Your task to perform on an android device: Open wifi settings Image 0: 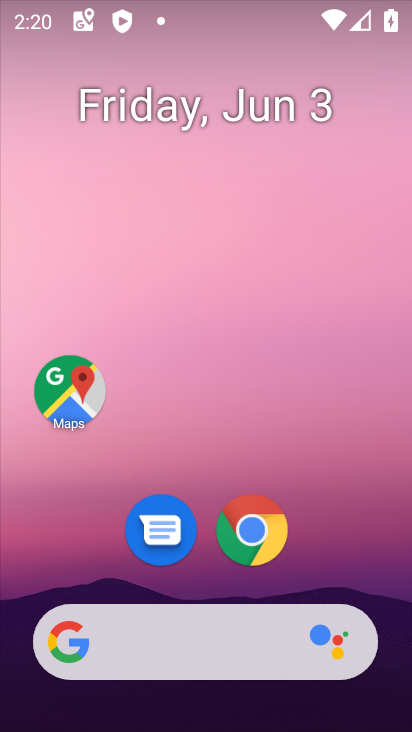
Step 0: drag from (336, 511) to (200, 98)
Your task to perform on an android device: Open wifi settings Image 1: 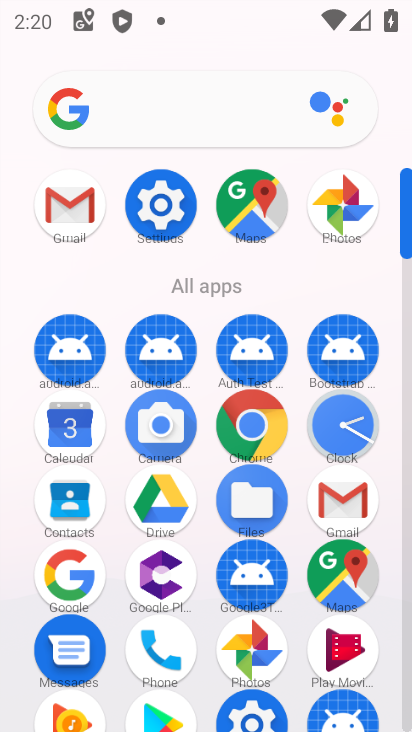
Step 1: click (158, 202)
Your task to perform on an android device: Open wifi settings Image 2: 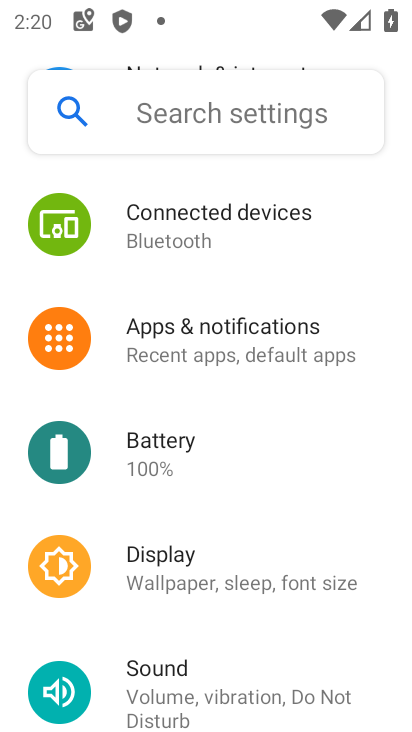
Step 2: drag from (221, 400) to (230, 713)
Your task to perform on an android device: Open wifi settings Image 3: 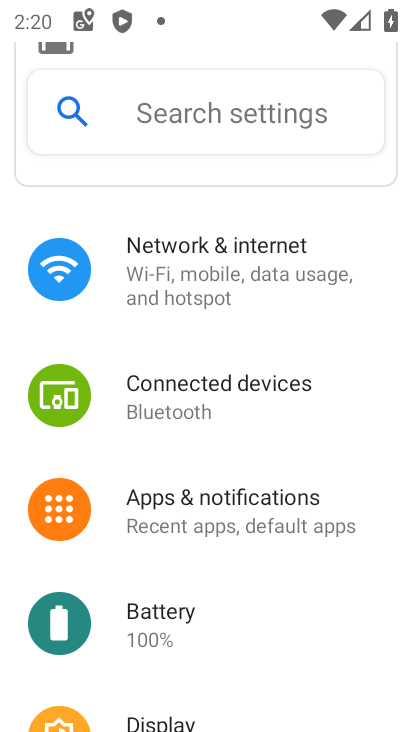
Step 3: click (200, 247)
Your task to perform on an android device: Open wifi settings Image 4: 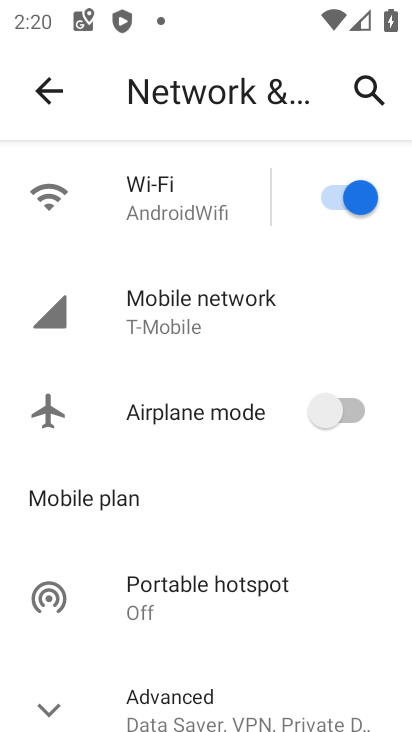
Step 4: click (181, 196)
Your task to perform on an android device: Open wifi settings Image 5: 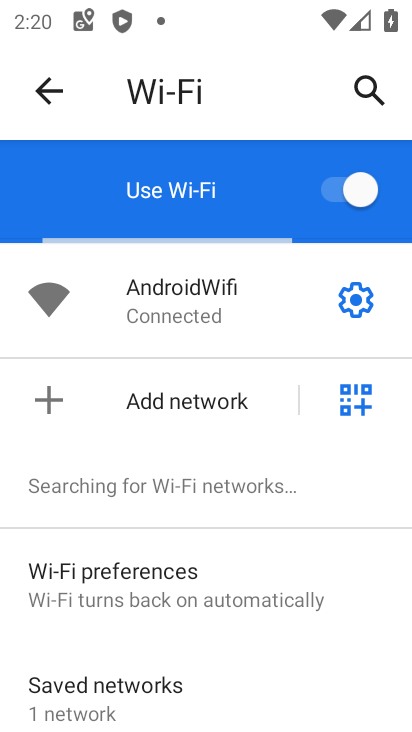
Step 5: task complete